Your task to perform on an android device: allow cookies in the chrome app Image 0: 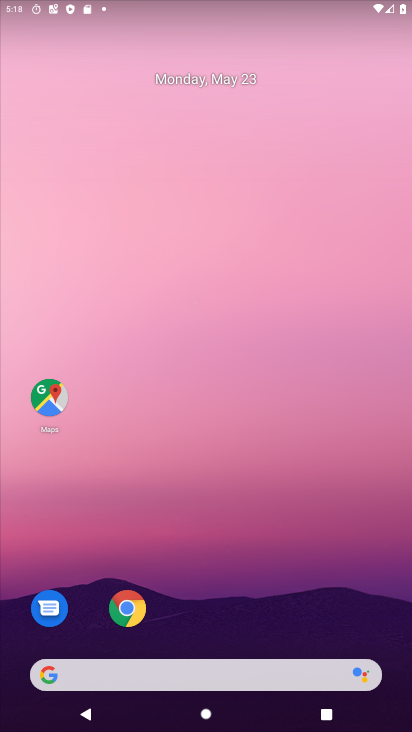
Step 0: click (127, 606)
Your task to perform on an android device: allow cookies in the chrome app Image 1: 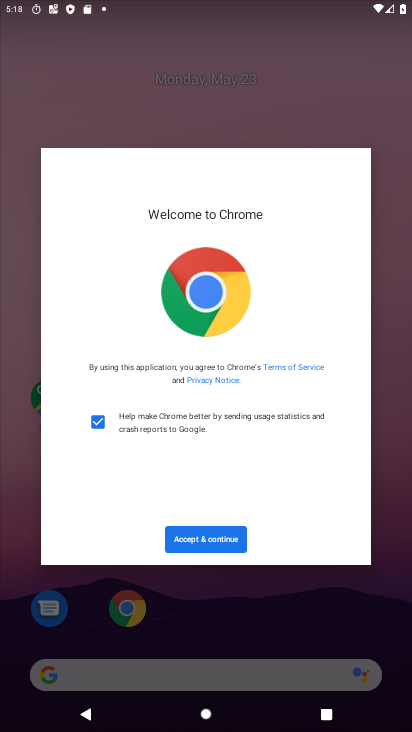
Step 1: click (220, 547)
Your task to perform on an android device: allow cookies in the chrome app Image 2: 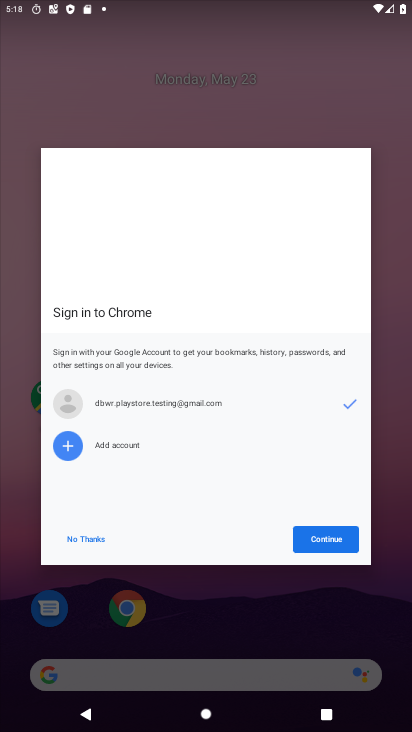
Step 2: click (321, 540)
Your task to perform on an android device: allow cookies in the chrome app Image 3: 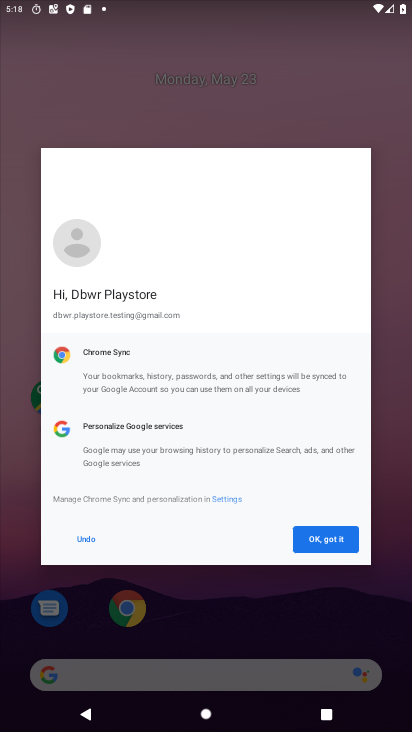
Step 3: click (323, 537)
Your task to perform on an android device: allow cookies in the chrome app Image 4: 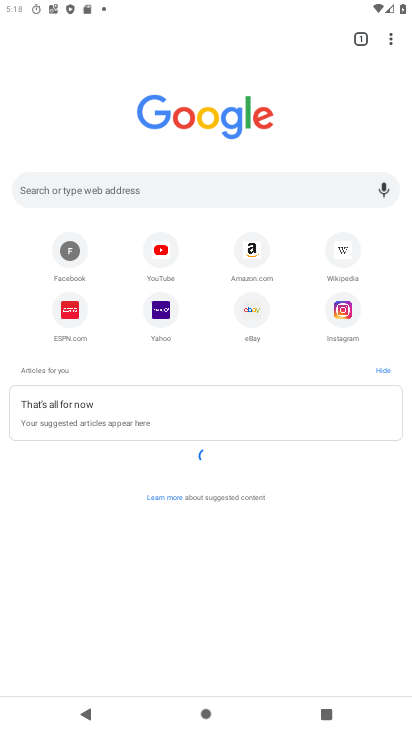
Step 4: click (391, 37)
Your task to perform on an android device: allow cookies in the chrome app Image 5: 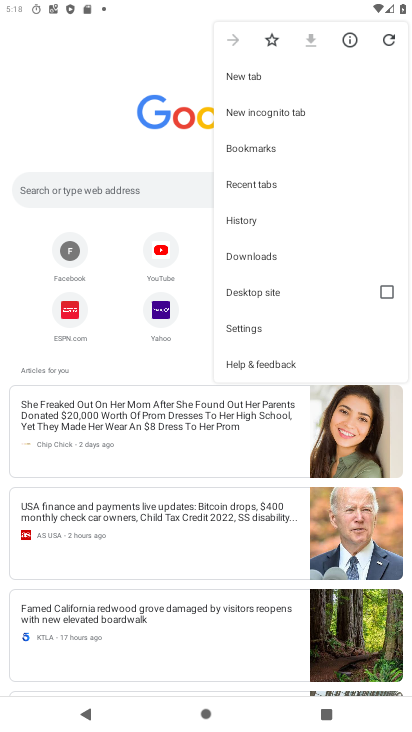
Step 5: click (248, 324)
Your task to perform on an android device: allow cookies in the chrome app Image 6: 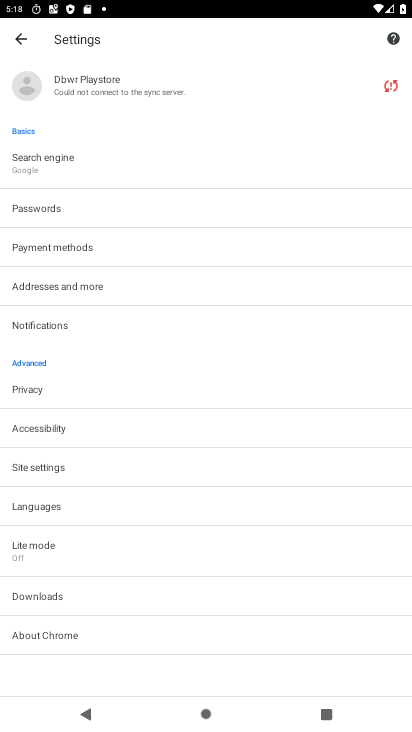
Step 6: click (62, 468)
Your task to perform on an android device: allow cookies in the chrome app Image 7: 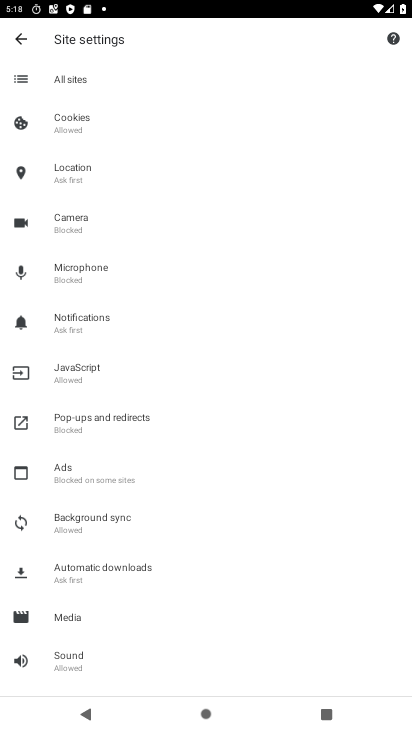
Step 7: click (88, 127)
Your task to perform on an android device: allow cookies in the chrome app Image 8: 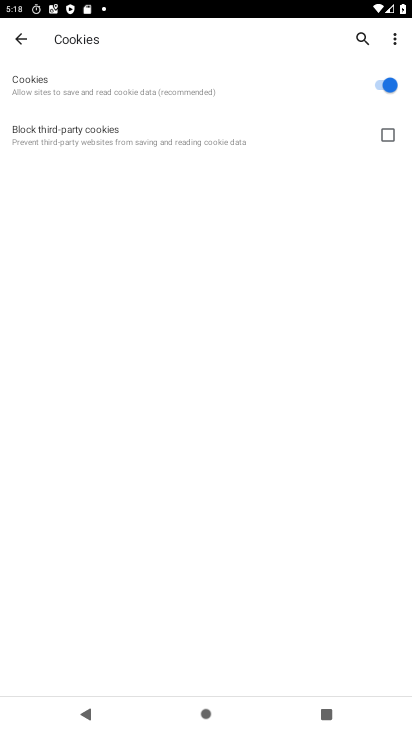
Step 8: task complete